Your task to perform on an android device: open app "Duolingo: language lessons" (install if not already installed) Image 0: 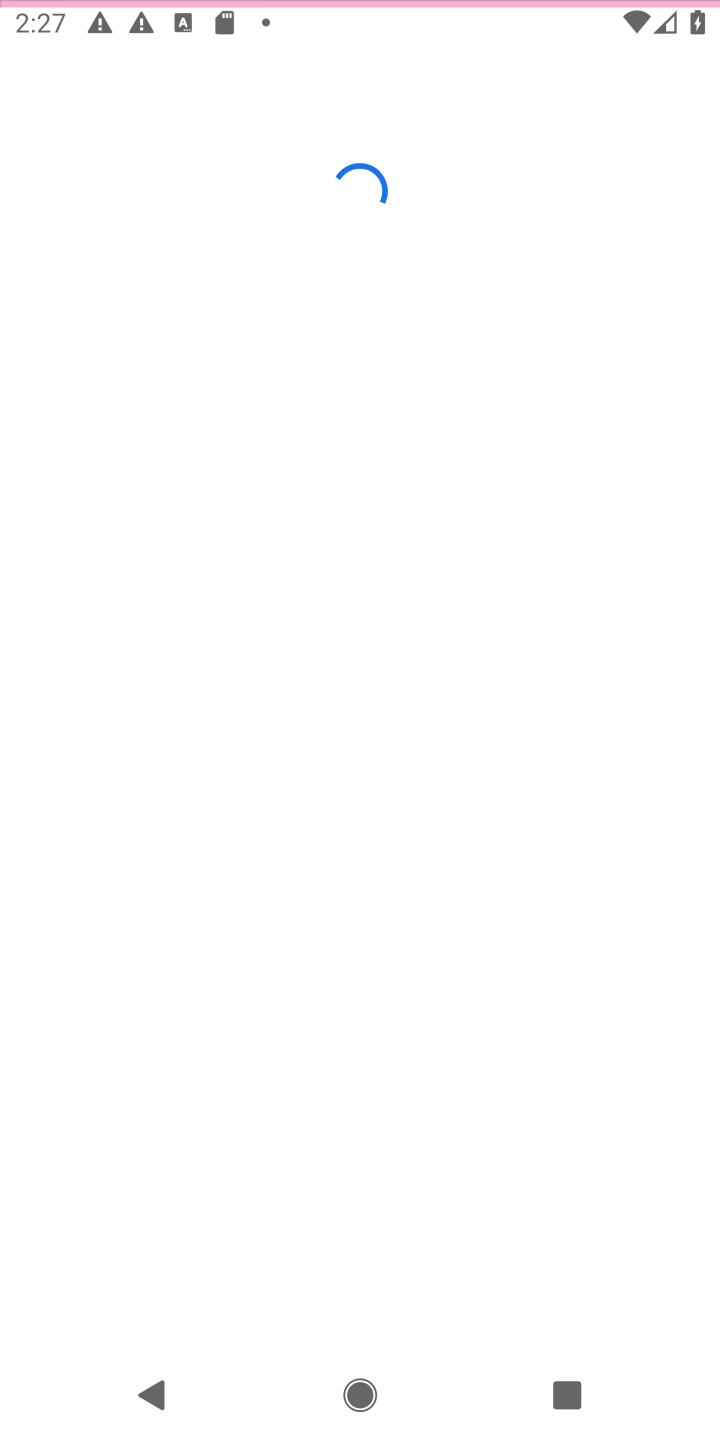
Step 0: press home button
Your task to perform on an android device: open app "Duolingo: language lessons" (install if not already installed) Image 1: 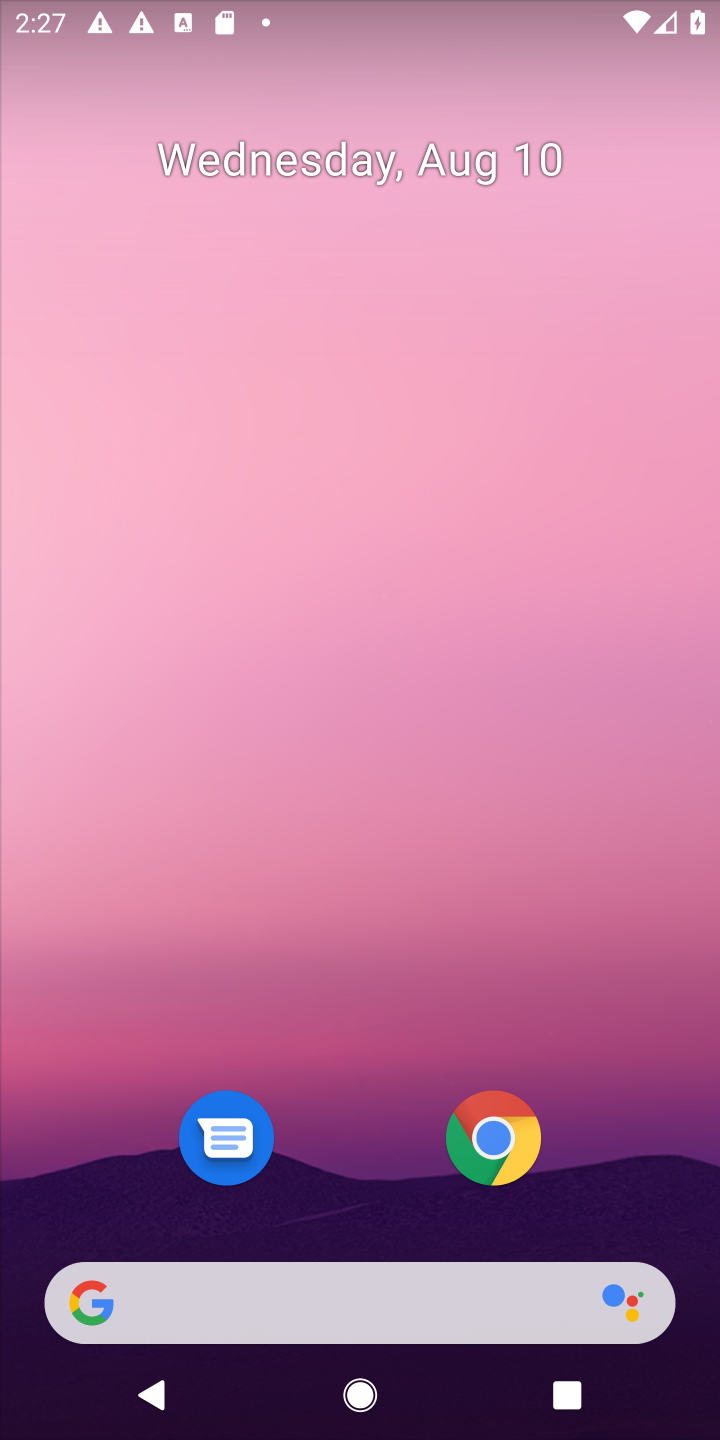
Step 1: drag from (605, 1157) to (613, 161)
Your task to perform on an android device: open app "Duolingo: language lessons" (install if not already installed) Image 2: 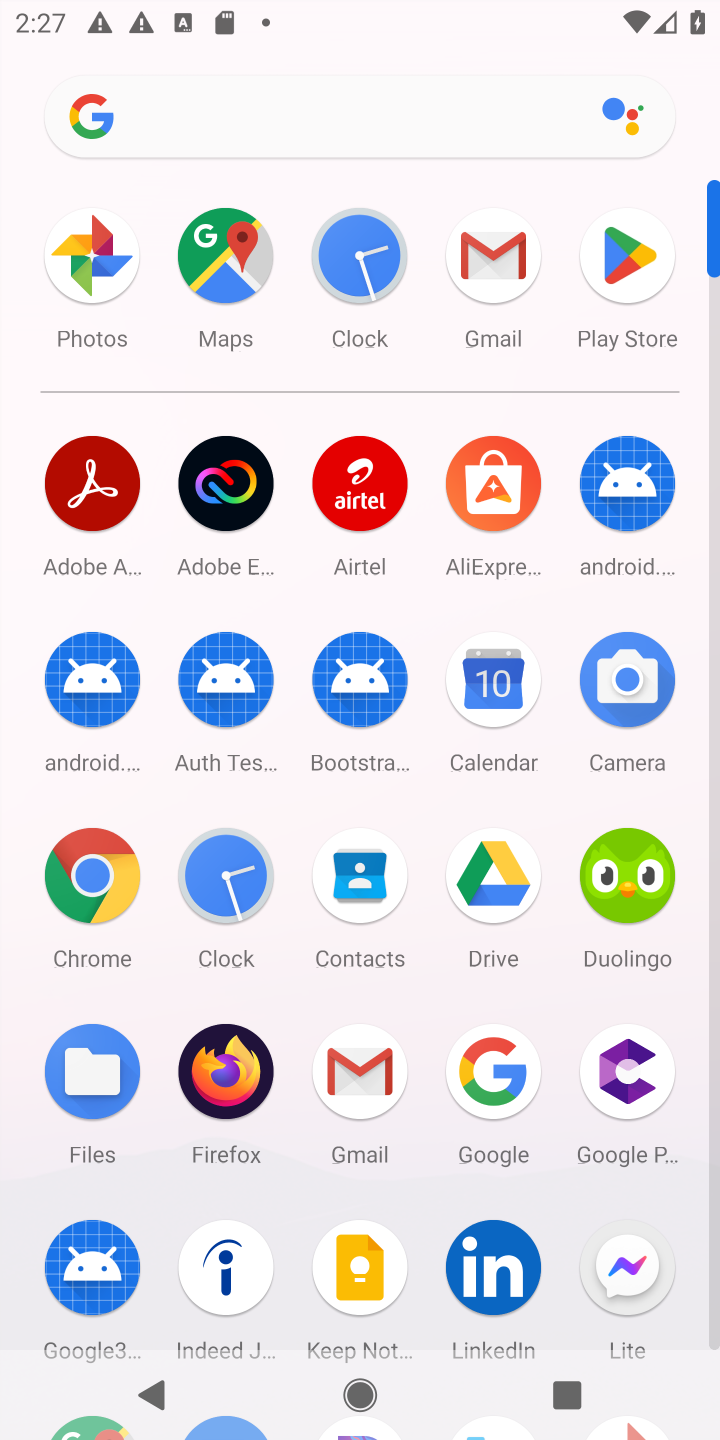
Step 2: click (632, 253)
Your task to perform on an android device: open app "Duolingo: language lessons" (install if not already installed) Image 3: 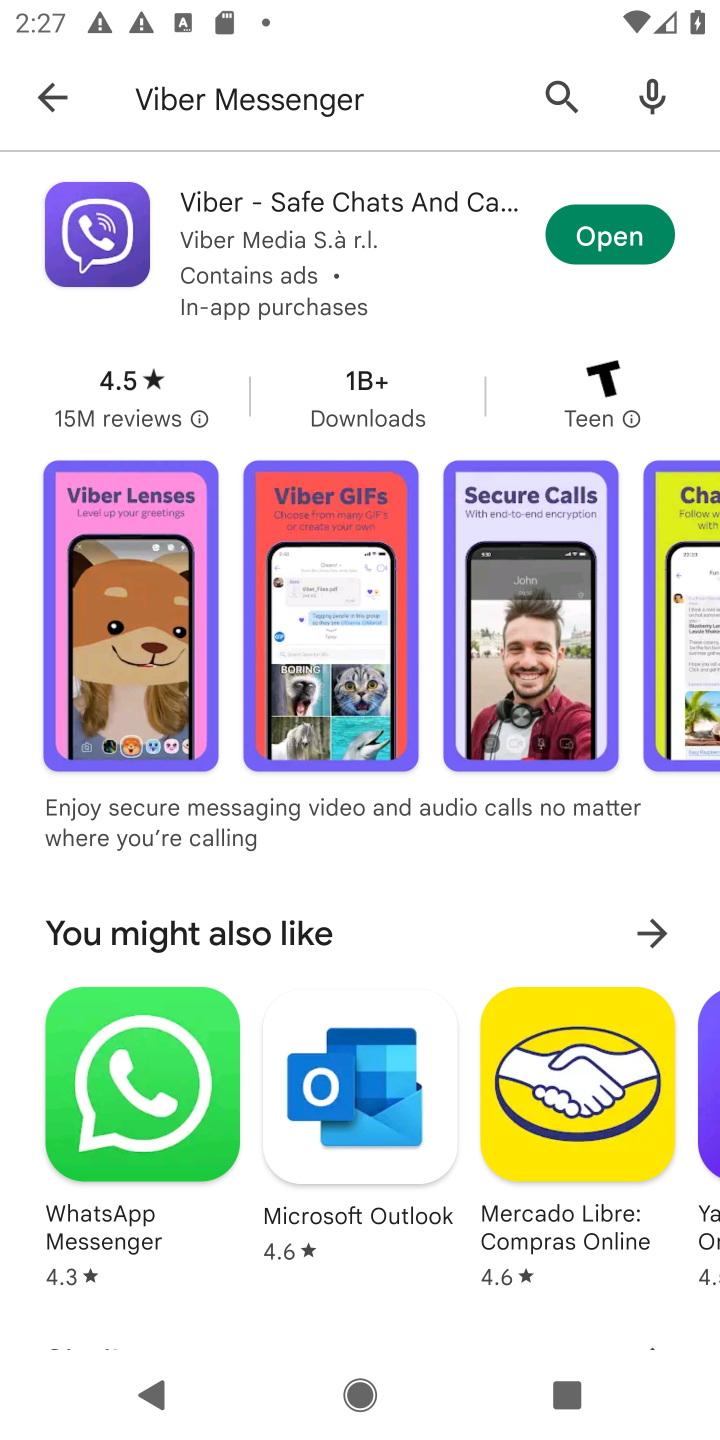
Step 3: click (559, 99)
Your task to perform on an android device: open app "Duolingo: language lessons" (install if not already installed) Image 4: 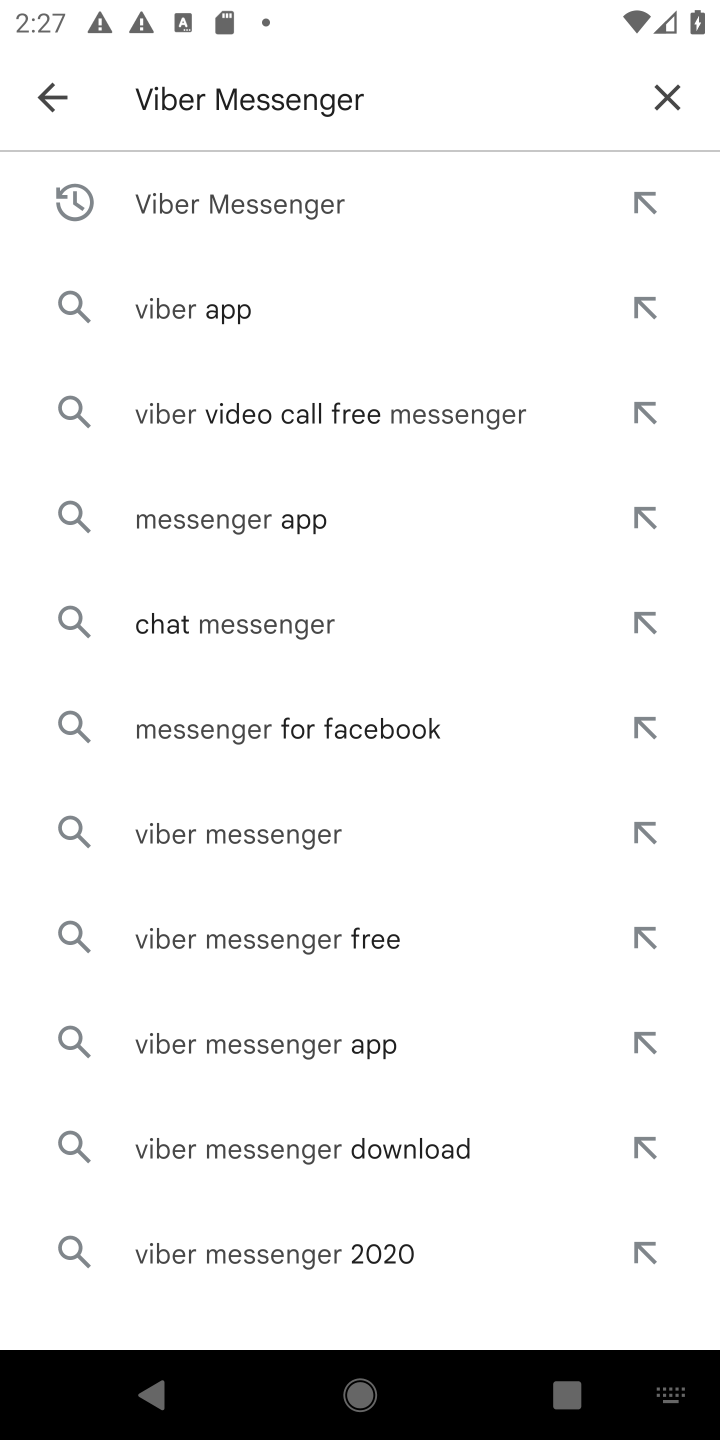
Step 4: click (665, 90)
Your task to perform on an android device: open app "Duolingo: language lessons" (install if not already installed) Image 5: 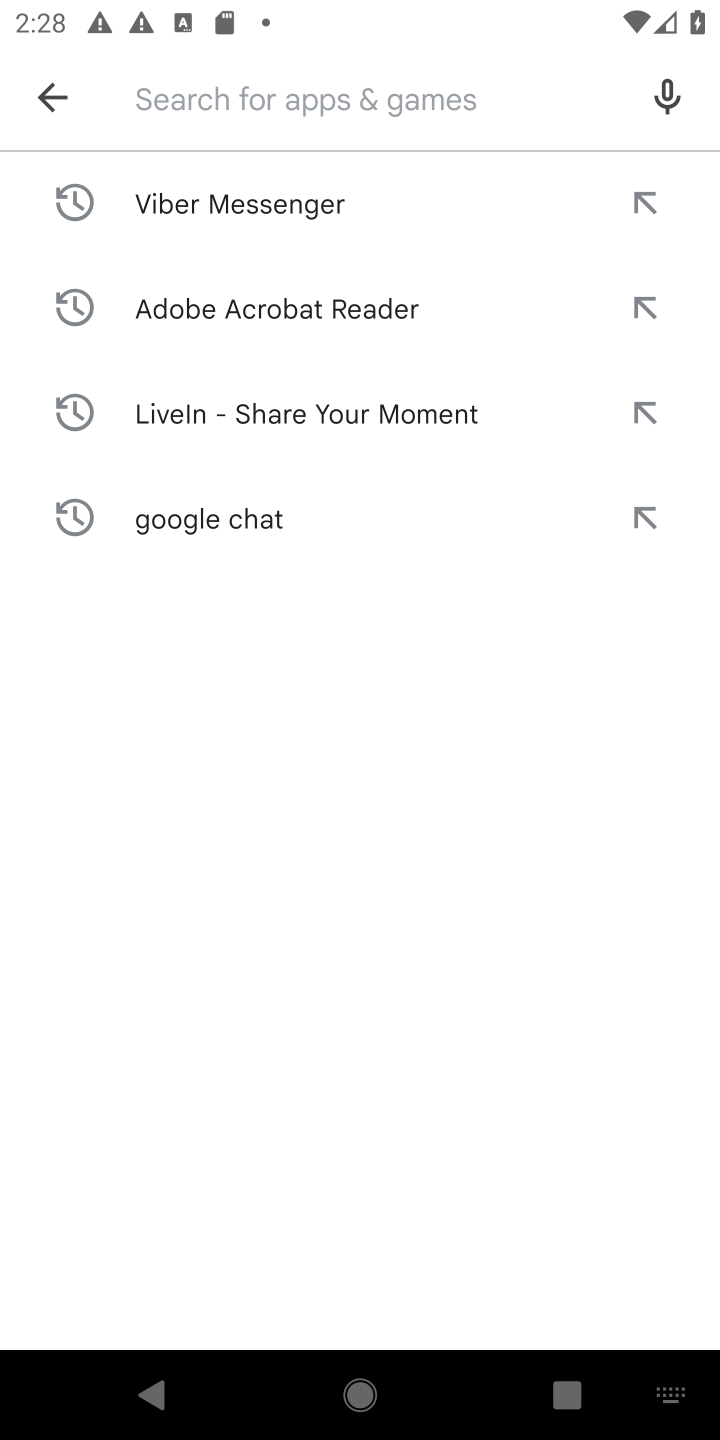
Step 5: press enter
Your task to perform on an android device: open app "Duolingo: language lessons" (install if not already installed) Image 6: 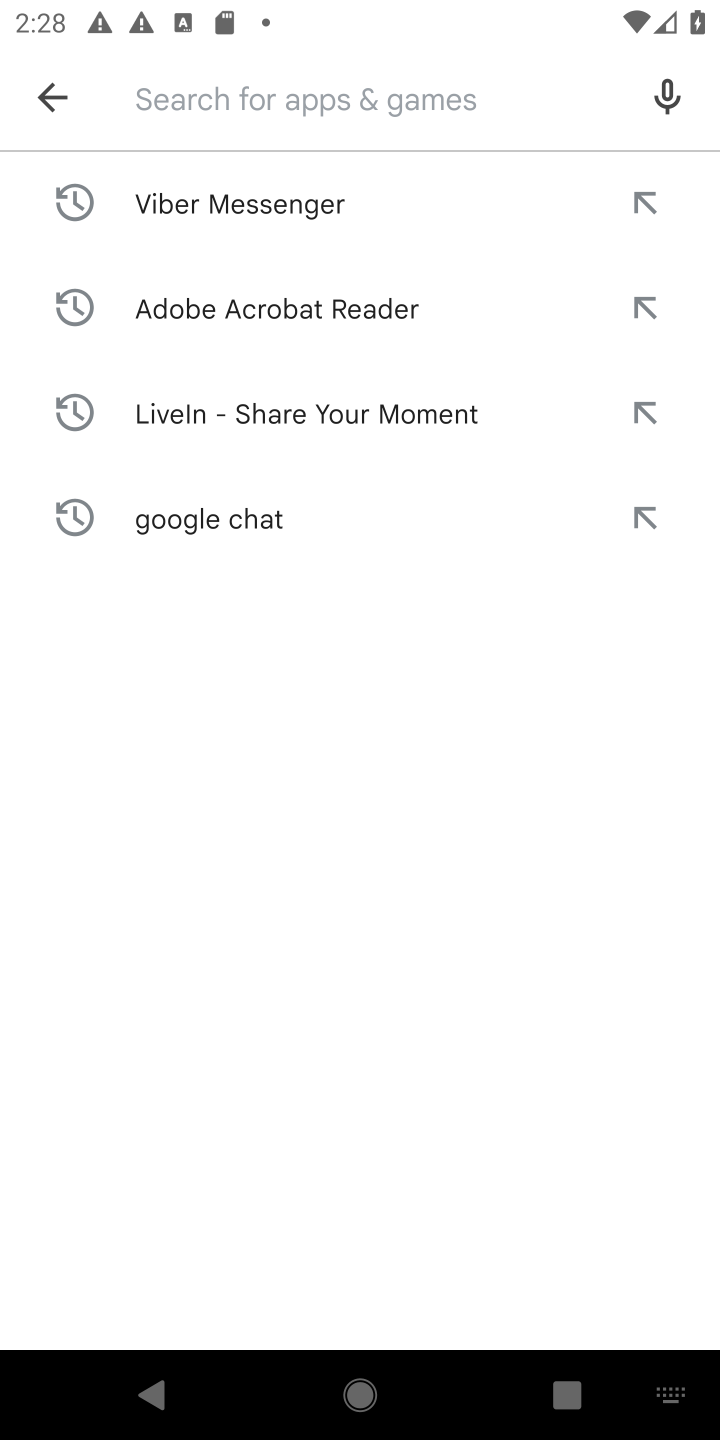
Step 6: type "Duolingo: language lessons"
Your task to perform on an android device: open app "Duolingo: language lessons" (install if not already installed) Image 7: 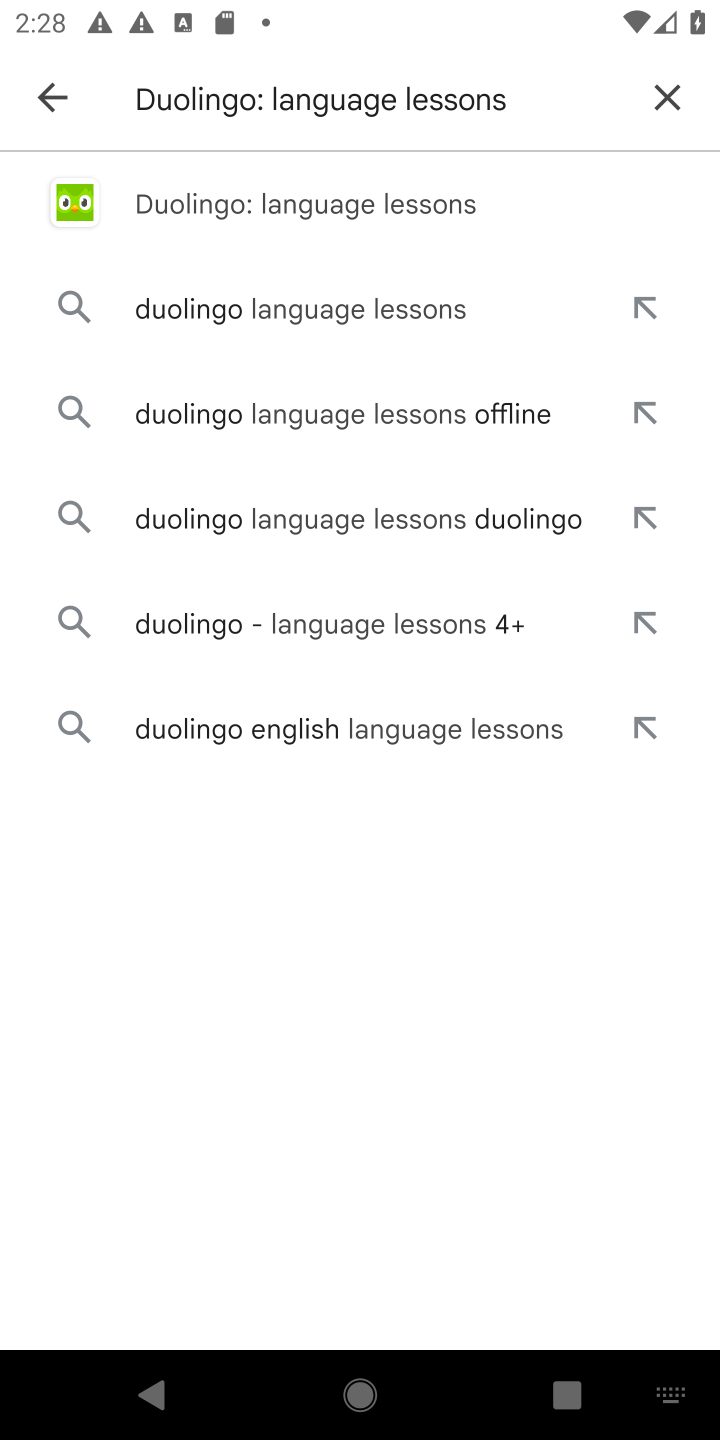
Step 7: click (398, 191)
Your task to perform on an android device: open app "Duolingo: language lessons" (install if not already installed) Image 8: 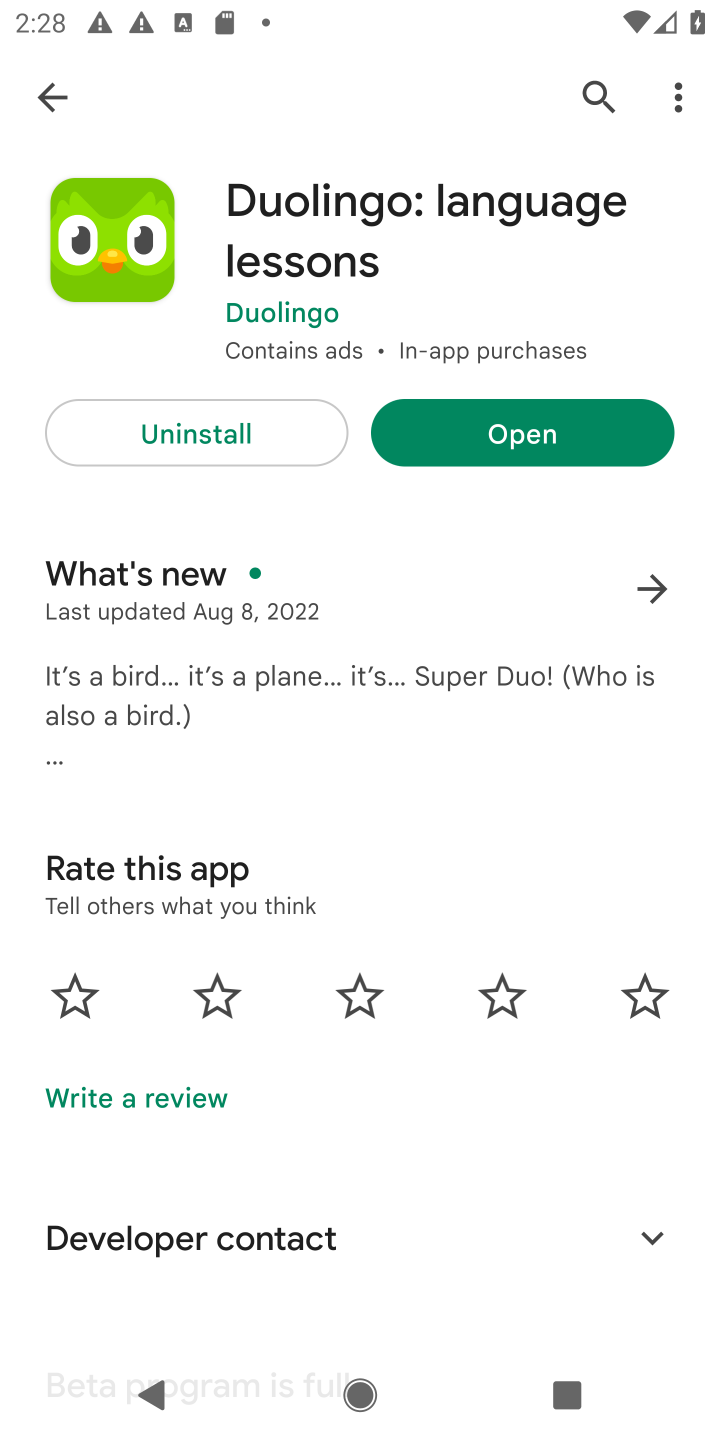
Step 8: click (562, 448)
Your task to perform on an android device: open app "Duolingo: language lessons" (install if not already installed) Image 9: 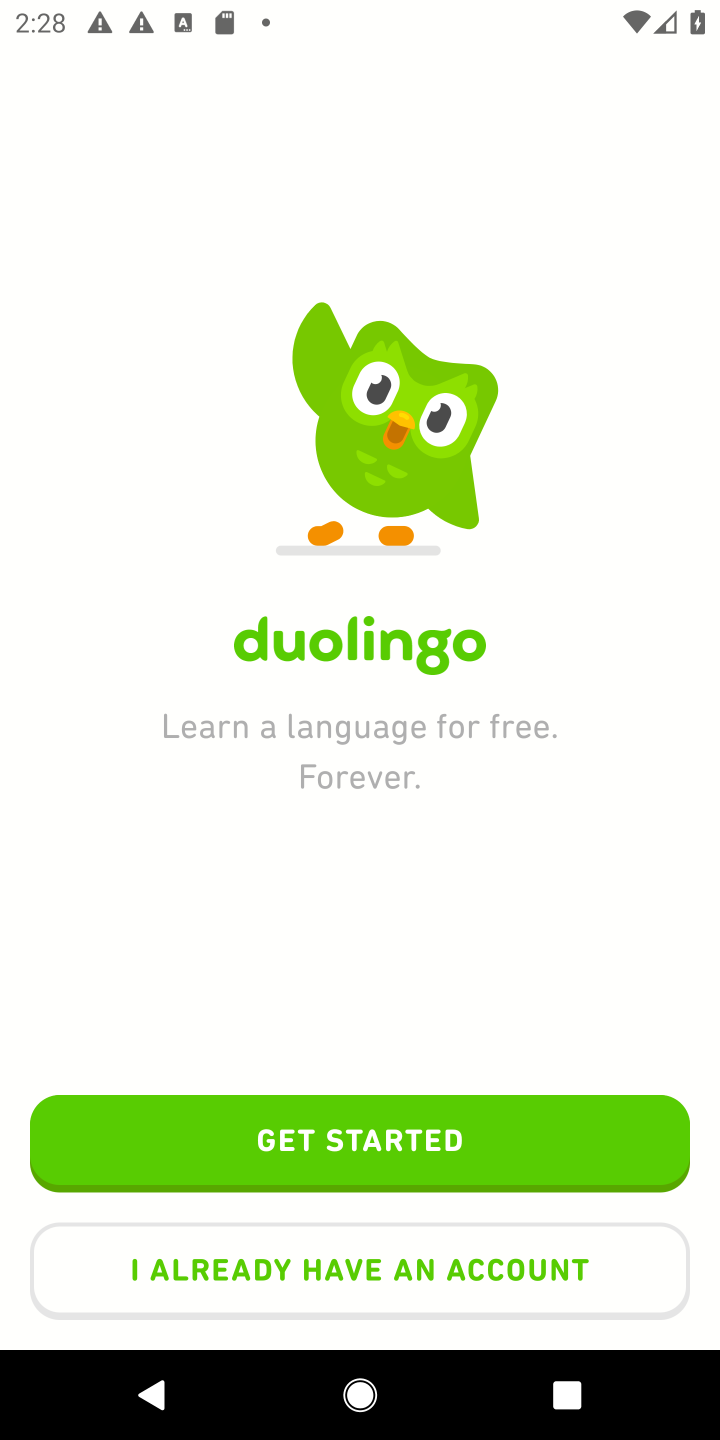
Step 9: task complete